Your task to perform on an android device: Is it going to rain tomorrow? Image 0: 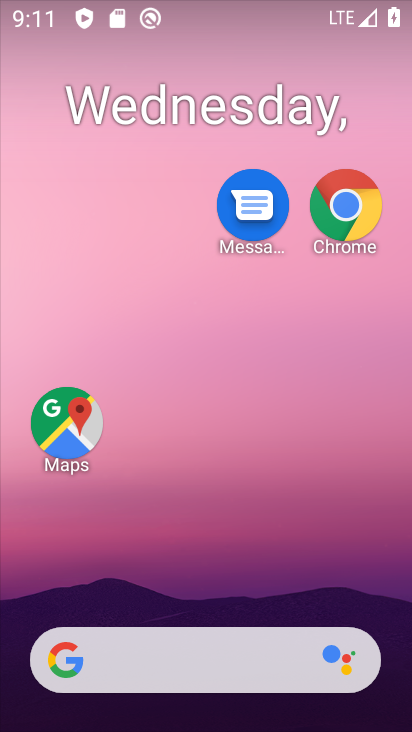
Step 0: drag from (211, 603) to (257, 189)
Your task to perform on an android device: Is it going to rain tomorrow? Image 1: 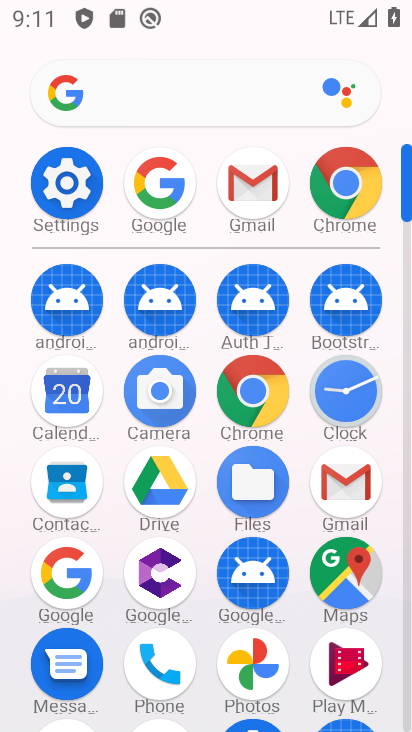
Step 1: click (257, 398)
Your task to perform on an android device: Is it going to rain tomorrow? Image 2: 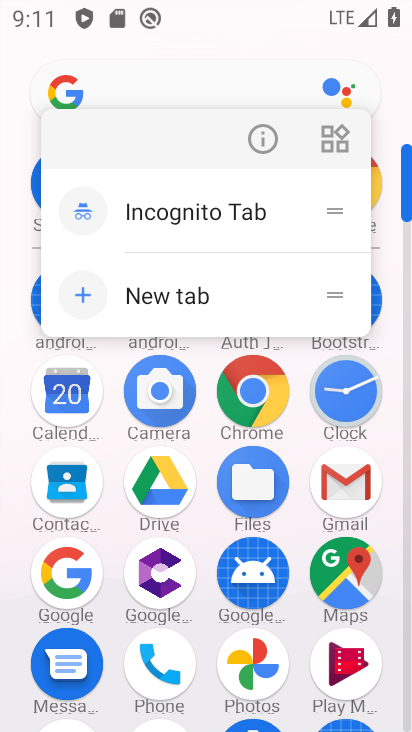
Step 2: click (261, 143)
Your task to perform on an android device: Is it going to rain tomorrow? Image 3: 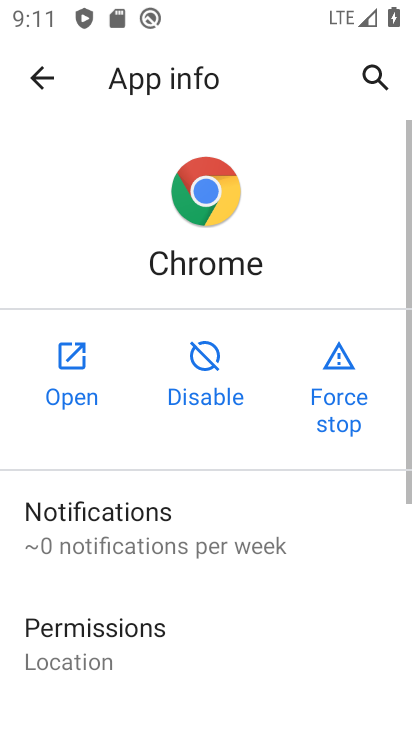
Step 3: click (48, 370)
Your task to perform on an android device: Is it going to rain tomorrow? Image 4: 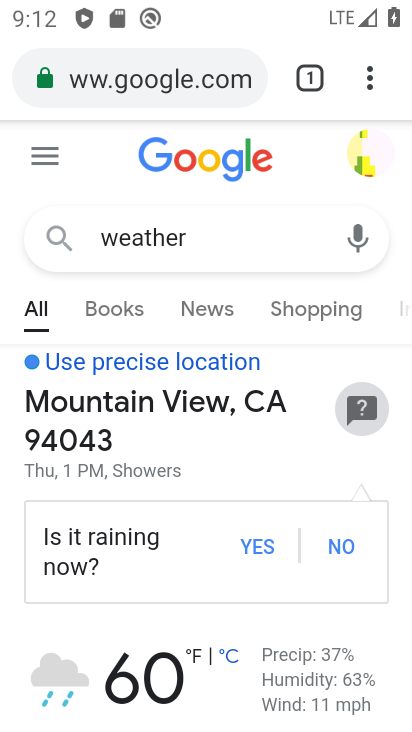
Step 4: click (214, 72)
Your task to perform on an android device: Is it going to rain tomorrow? Image 5: 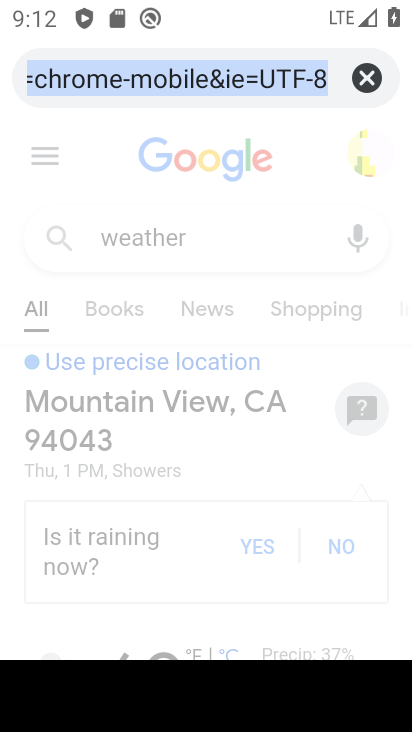
Step 5: click (360, 77)
Your task to perform on an android device: Is it going to rain tomorrow? Image 6: 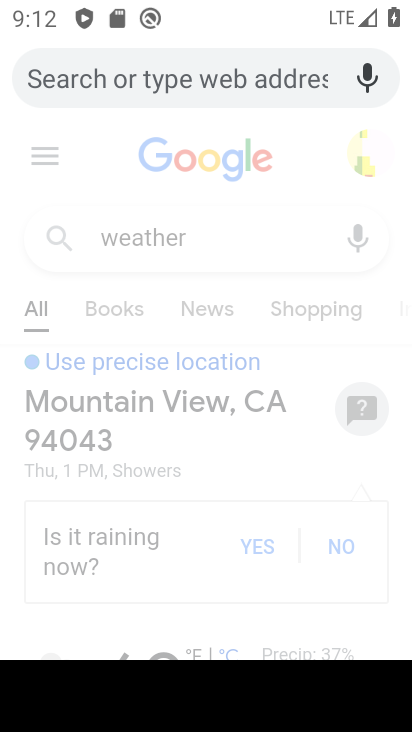
Step 6: click (199, 96)
Your task to perform on an android device: Is it going to rain tomorrow? Image 7: 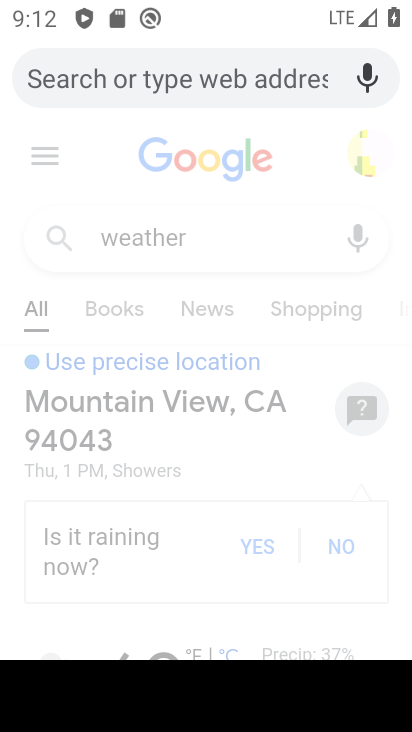
Step 7: type "rain tomorrow"
Your task to perform on an android device: Is it going to rain tomorrow? Image 8: 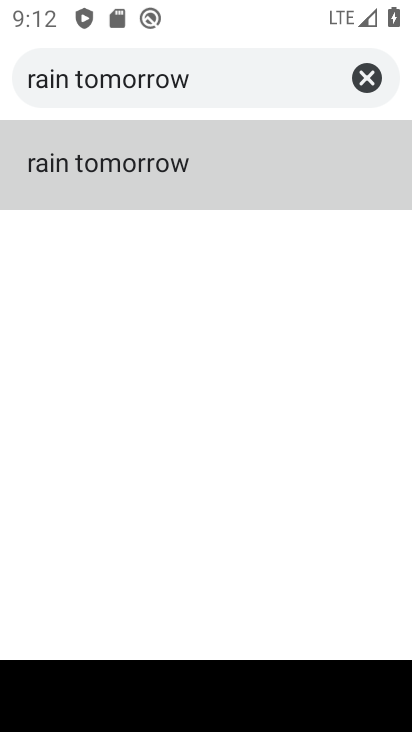
Step 8: click (105, 133)
Your task to perform on an android device: Is it going to rain tomorrow? Image 9: 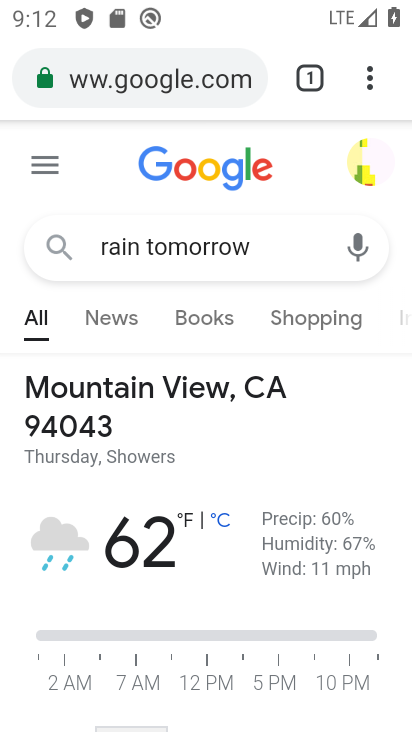
Step 9: task complete